Your task to perform on an android device: Turn on the flashlight Image 0: 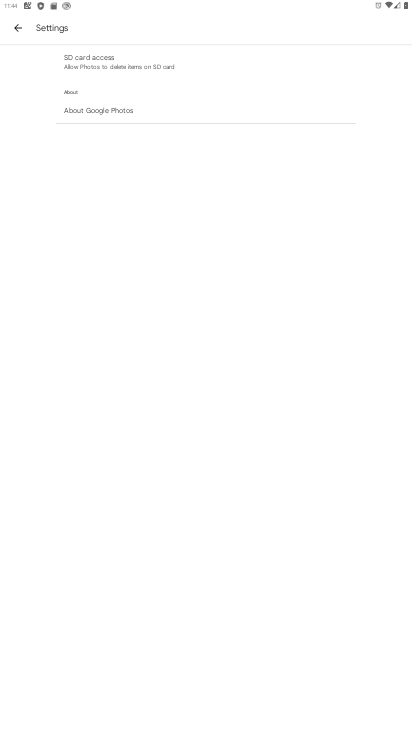
Step 0: press home button
Your task to perform on an android device: Turn on the flashlight Image 1: 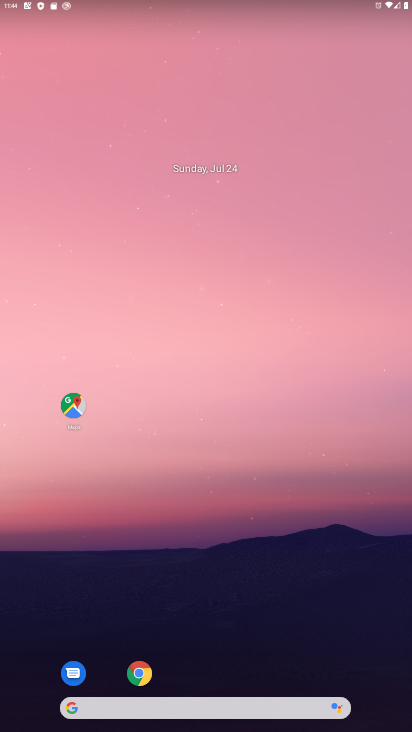
Step 1: drag from (360, 573) to (343, 47)
Your task to perform on an android device: Turn on the flashlight Image 2: 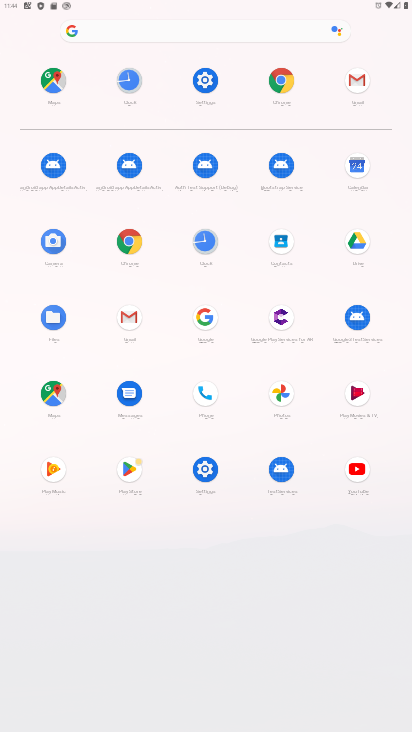
Step 2: click (212, 84)
Your task to perform on an android device: Turn on the flashlight Image 3: 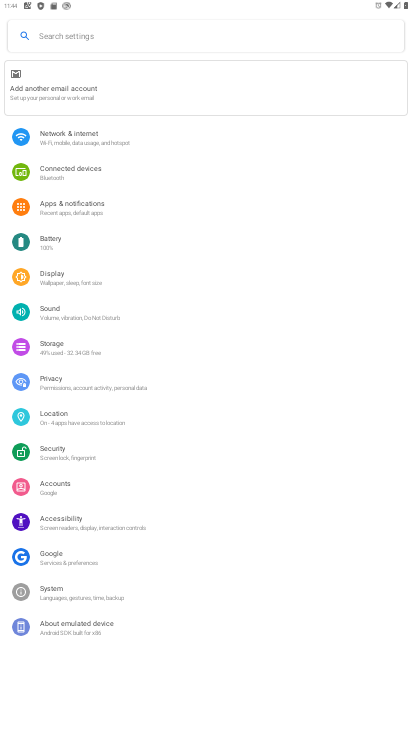
Step 3: click (83, 284)
Your task to perform on an android device: Turn on the flashlight Image 4: 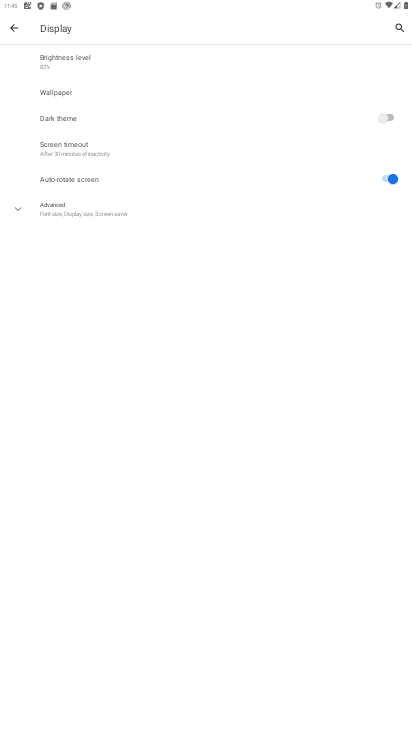
Step 4: task complete